Your task to perform on an android device: Search for pizza restaurants on Maps Image 0: 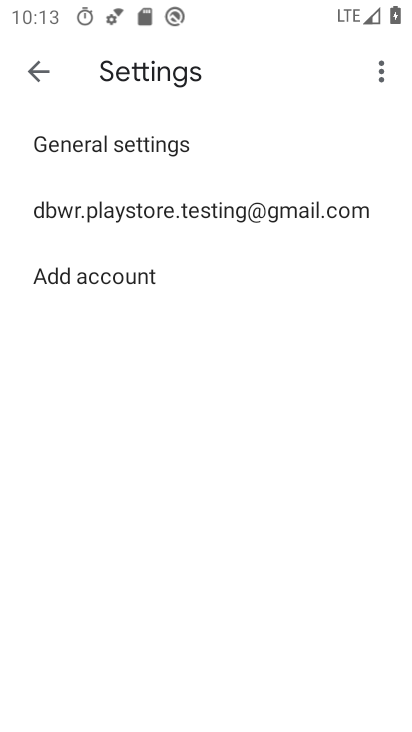
Step 0: press home button
Your task to perform on an android device: Search for pizza restaurants on Maps Image 1: 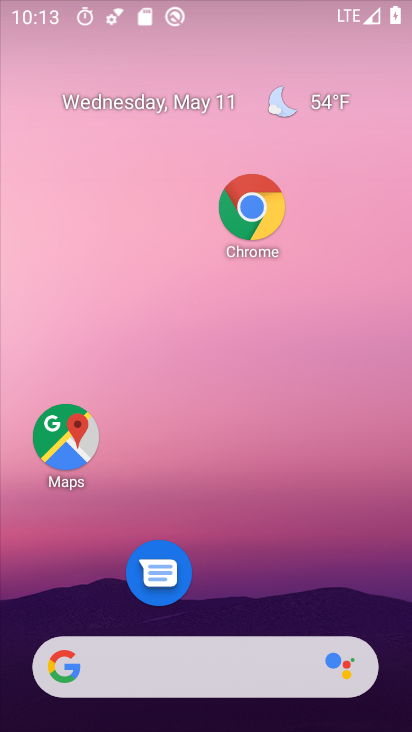
Step 1: drag from (182, 640) to (277, 167)
Your task to perform on an android device: Search for pizza restaurants on Maps Image 2: 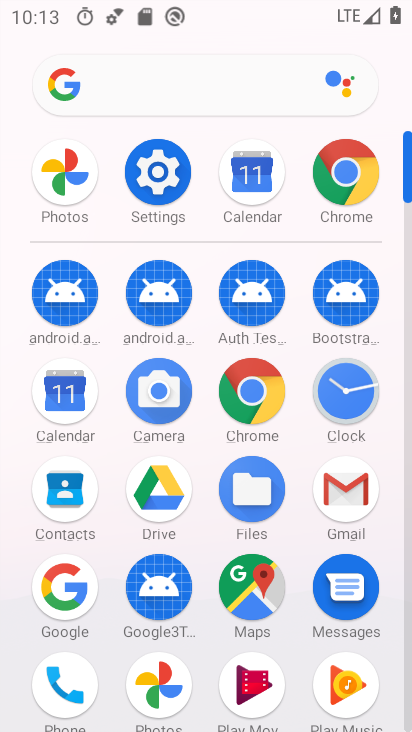
Step 2: click (239, 577)
Your task to perform on an android device: Search for pizza restaurants on Maps Image 3: 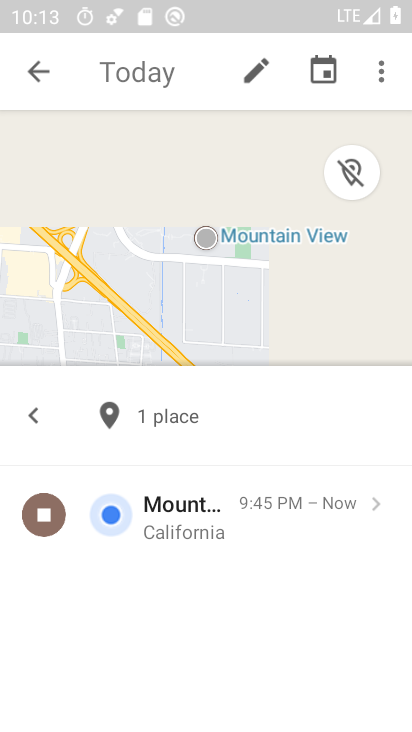
Step 3: press back button
Your task to perform on an android device: Search for pizza restaurants on Maps Image 4: 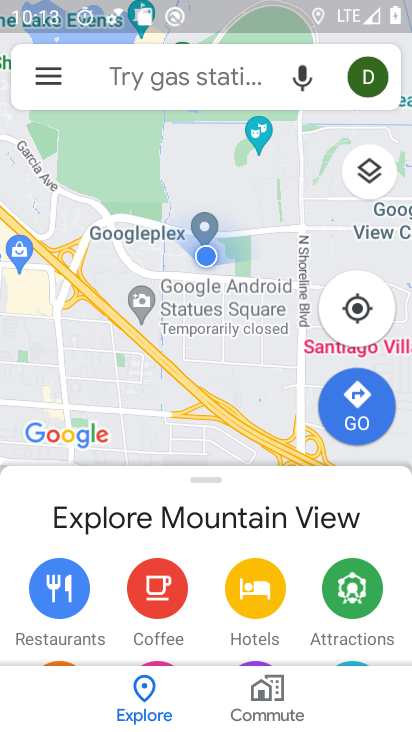
Step 4: click (99, 74)
Your task to perform on an android device: Search for pizza restaurants on Maps Image 5: 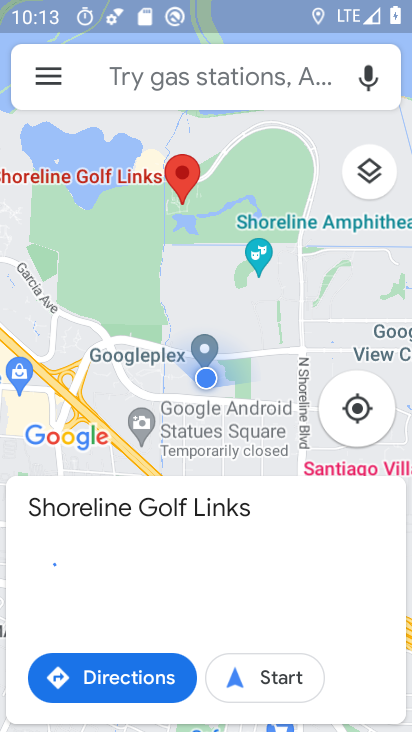
Step 5: click (123, 93)
Your task to perform on an android device: Search for pizza restaurants on Maps Image 6: 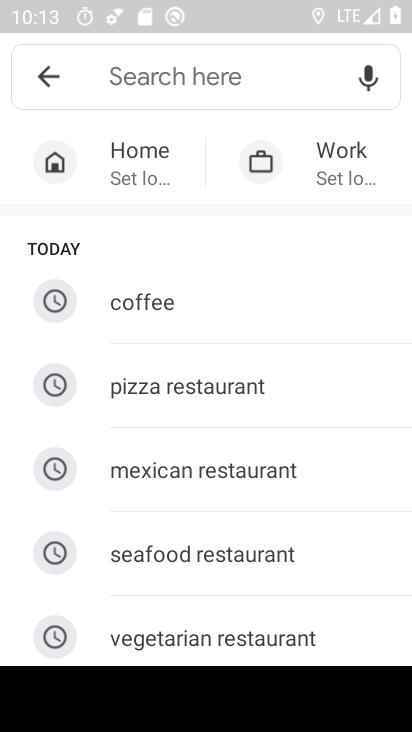
Step 6: click (145, 388)
Your task to perform on an android device: Search for pizza restaurants on Maps Image 7: 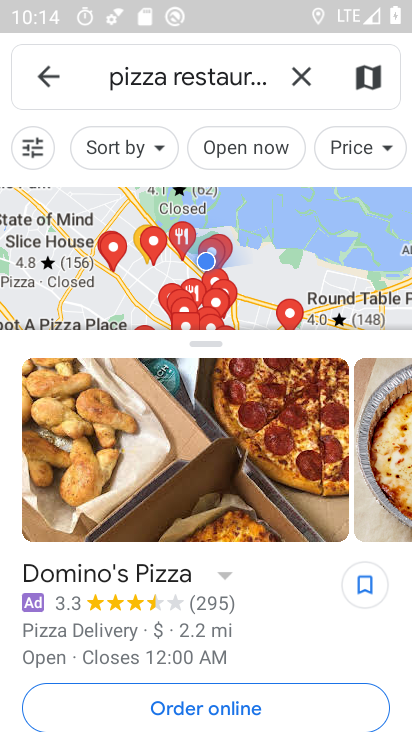
Step 7: task complete